Your task to perform on an android device: Go to network settings Image 0: 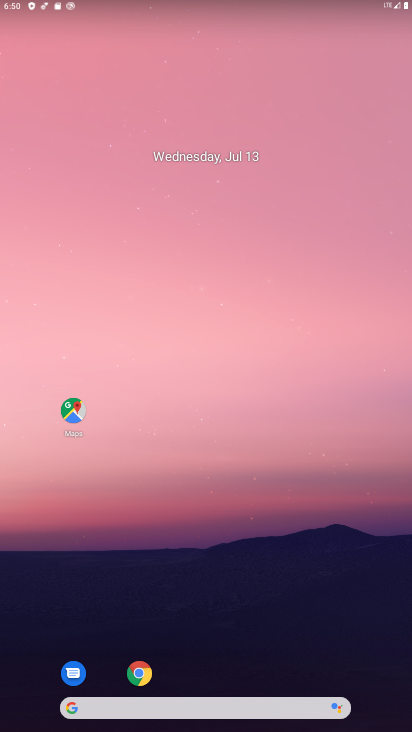
Step 0: drag from (245, 672) to (331, 102)
Your task to perform on an android device: Go to network settings Image 1: 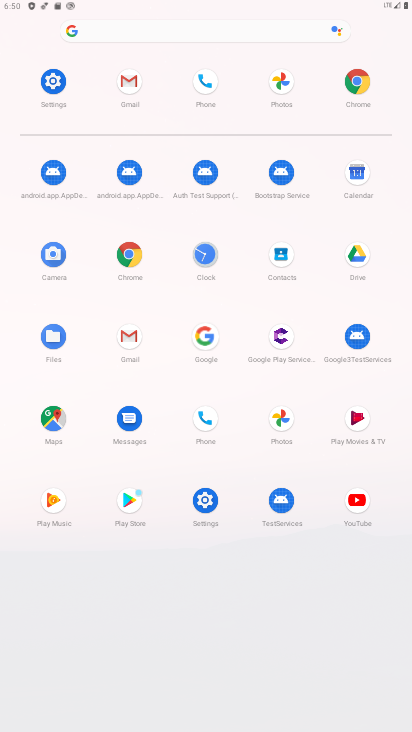
Step 1: click (64, 86)
Your task to perform on an android device: Go to network settings Image 2: 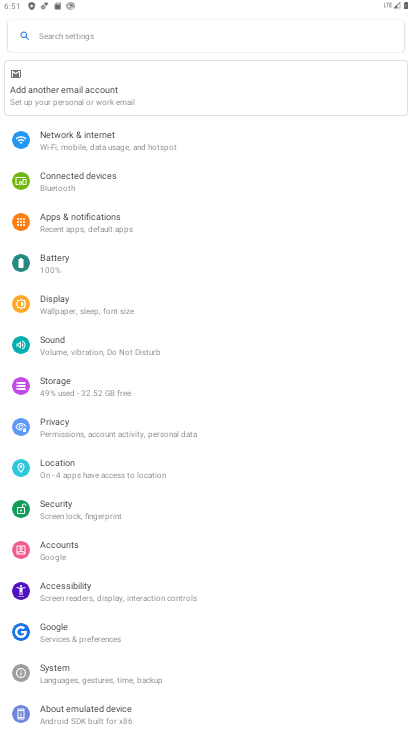
Step 2: click (69, 128)
Your task to perform on an android device: Go to network settings Image 3: 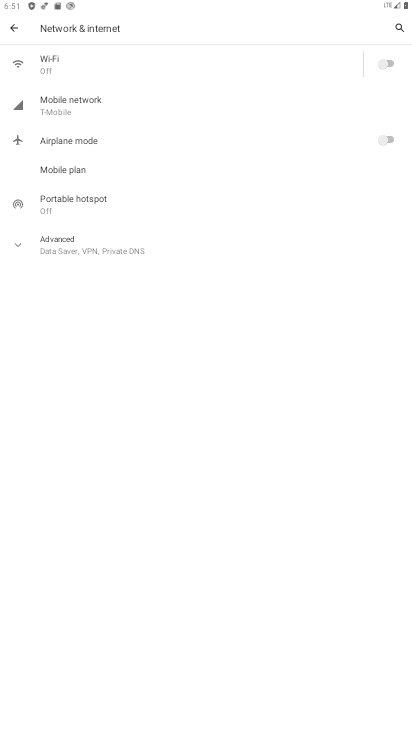
Step 3: task complete